Your task to perform on an android device: Do I have any events this weekend? Image 0: 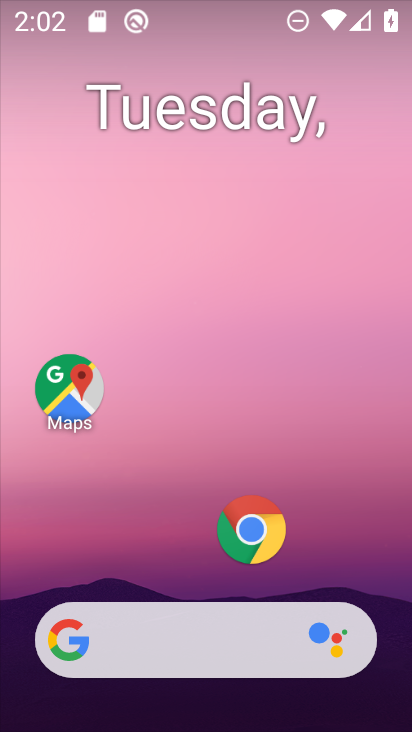
Step 0: drag from (231, 664) to (226, 89)
Your task to perform on an android device: Do I have any events this weekend? Image 1: 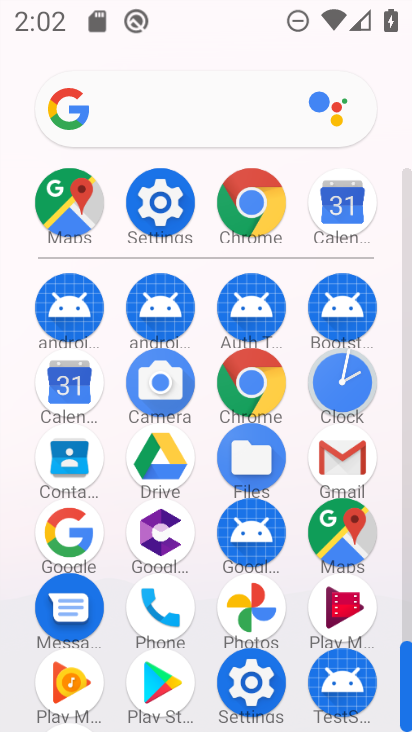
Step 1: click (73, 371)
Your task to perform on an android device: Do I have any events this weekend? Image 2: 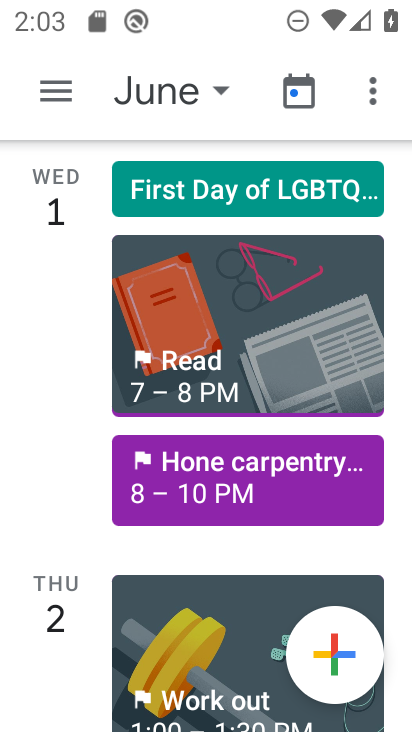
Step 2: click (55, 90)
Your task to perform on an android device: Do I have any events this weekend? Image 3: 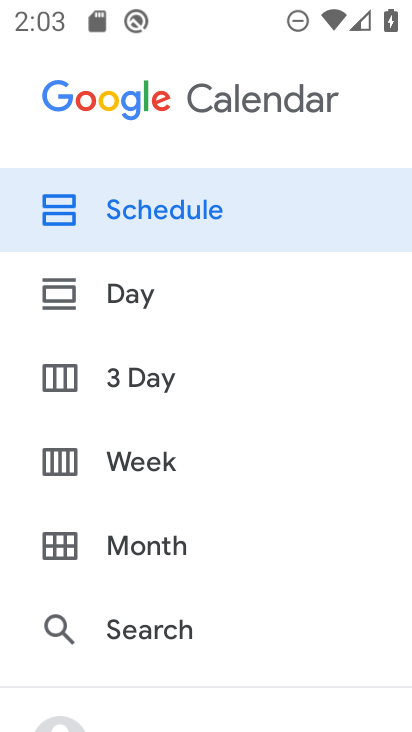
Step 3: click (143, 462)
Your task to perform on an android device: Do I have any events this weekend? Image 4: 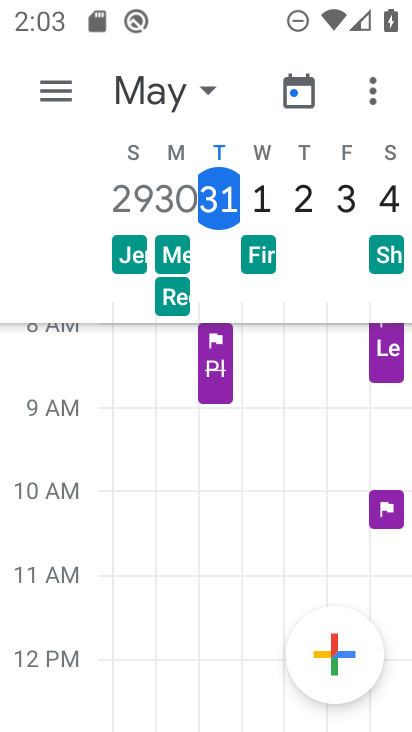
Step 4: task complete